Your task to perform on an android device: turn pop-ups on in chrome Image 0: 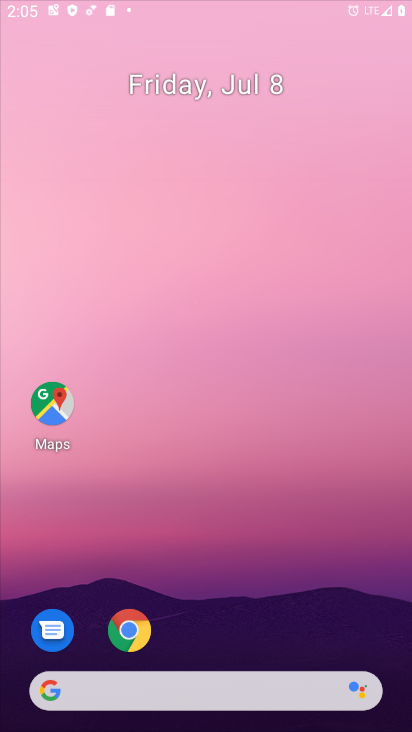
Step 0: press home button
Your task to perform on an android device: turn pop-ups on in chrome Image 1: 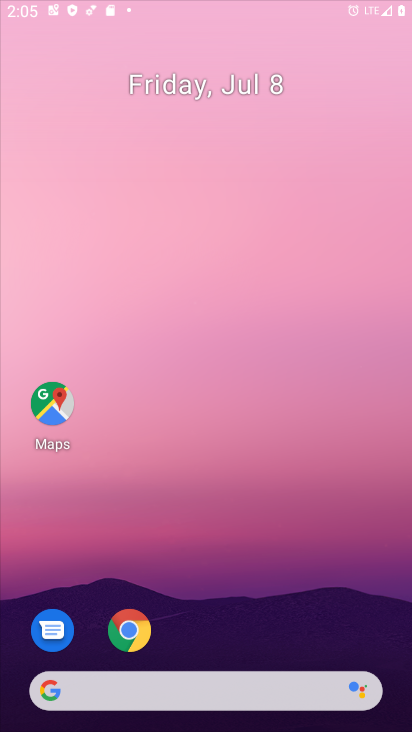
Step 1: click (262, 47)
Your task to perform on an android device: turn pop-ups on in chrome Image 2: 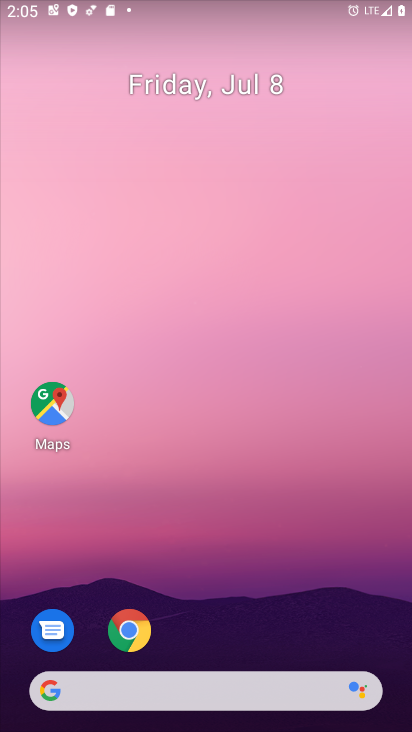
Step 2: click (125, 623)
Your task to perform on an android device: turn pop-ups on in chrome Image 3: 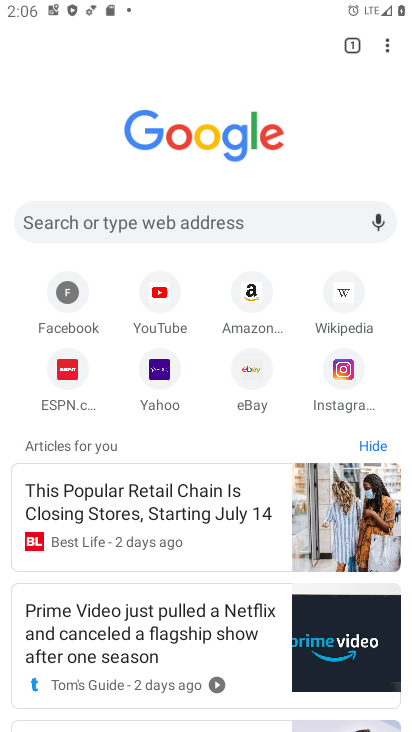
Step 3: click (386, 46)
Your task to perform on an android device: turn pop-ups on in chrome Image 4: 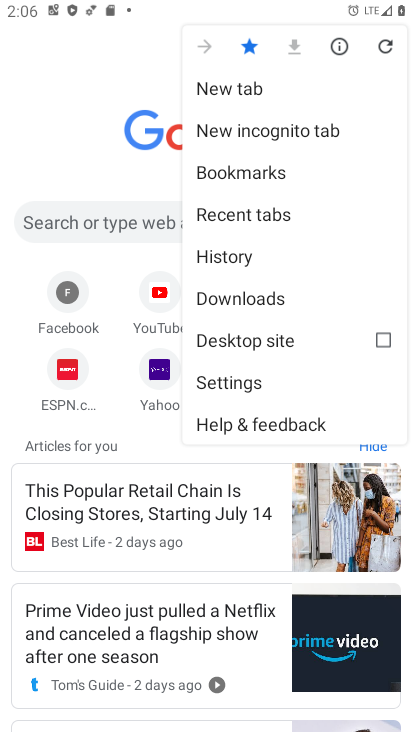
Step 4: click (260, 381)
Your task to perform on an android device: turn pop-ups on in chrome Image 5: 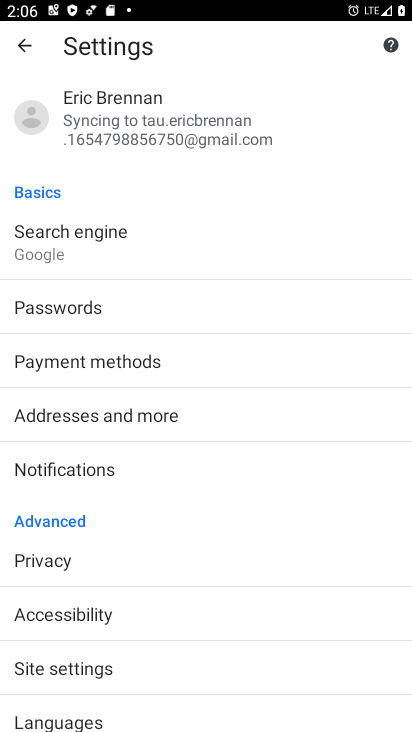
Step 5: click (129, 669)
Your task to perform on an android device: turn pop-ups on in chrome Image 6: 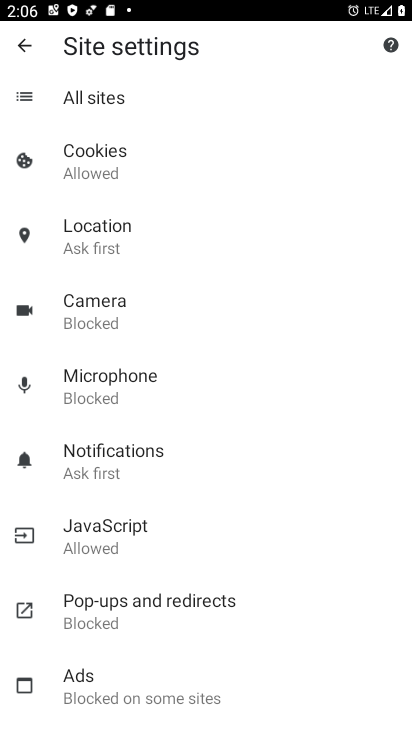
Step 6: click (144, 615)
Your task to perform on an android device: turn pop-ups on in chrome Image 7: 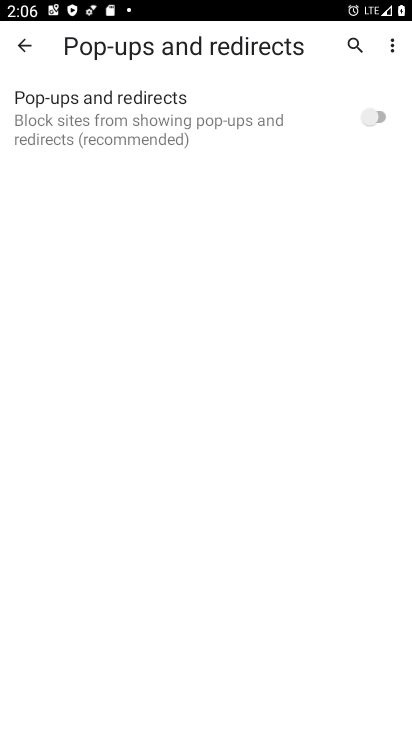
Step 7: click (376, 116)
Your task to perform on an android device: turn pop-ups on in chrome Image 8: 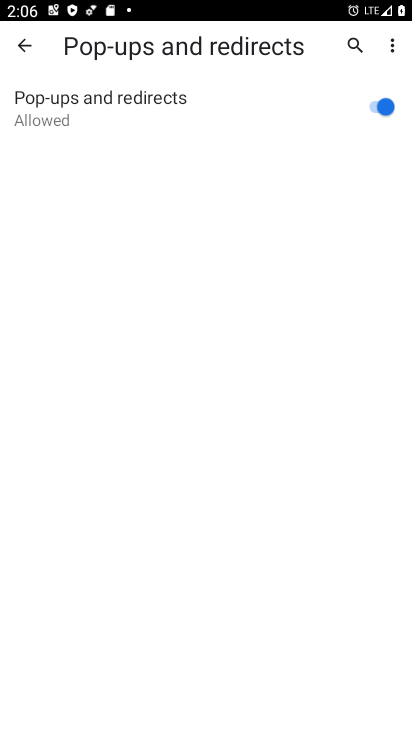
Step 8: task complete